Your task to perform on an android device: Open Maps and search for coffee Image 0: 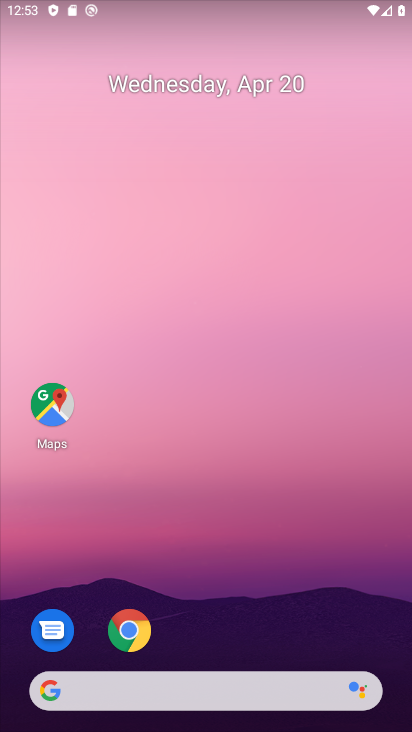
Step 0: drag from (328, 622) to (308, 241)
Your task to perform on an android device: Open Maps and search for coffee Image 1: 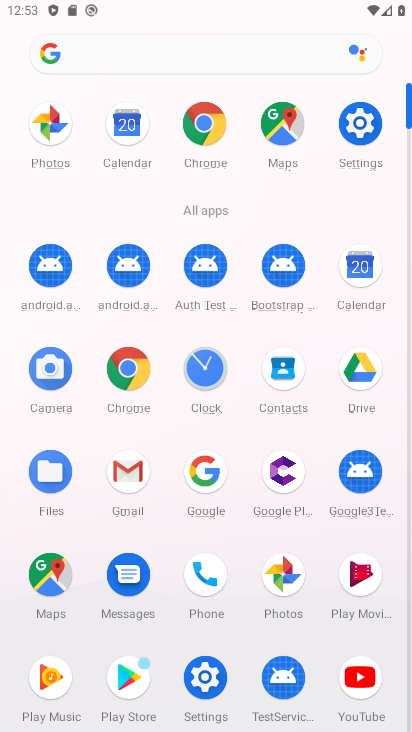
Step 1: click (283, 134)
Your task to perform on an android device: Open Maps and search for coffee Image 2: 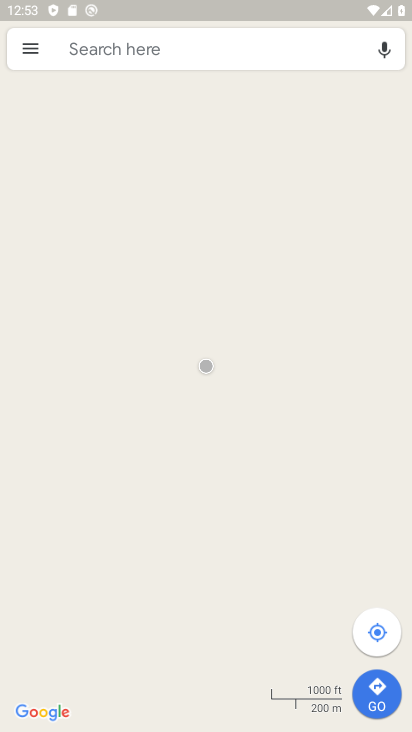
Step 2: click (189, 55)
Your task to perform on an android device: Open Maps and search for coffee Image 3: 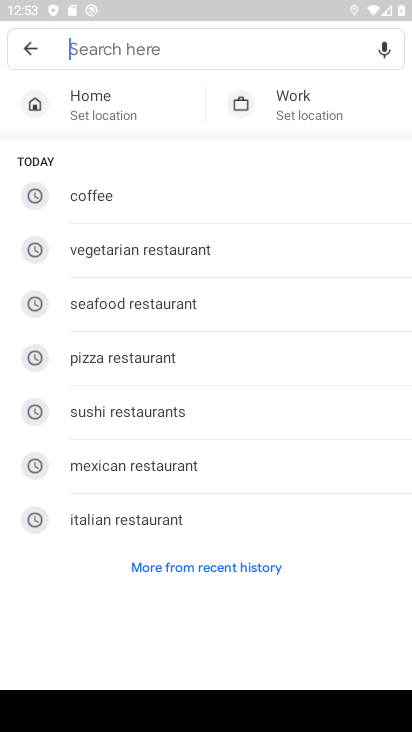
Step 3: type "coffee"
Your task to perform on an android device: Open Maps and search for coffee Image 4: 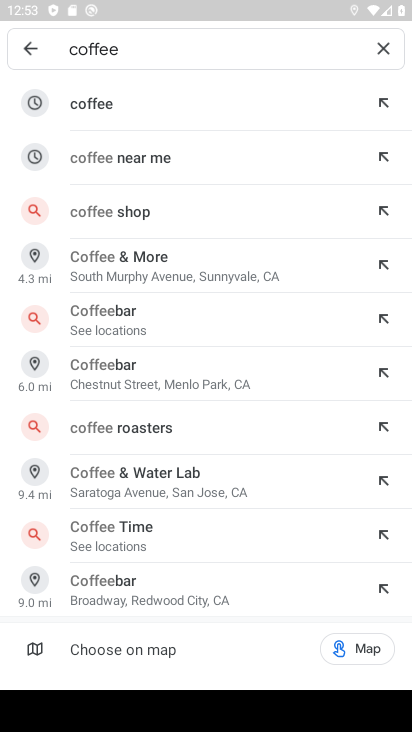
Step 4: click (85, 105)
Your task to perform on an android device: Open Maps and search for coffee Image 5: 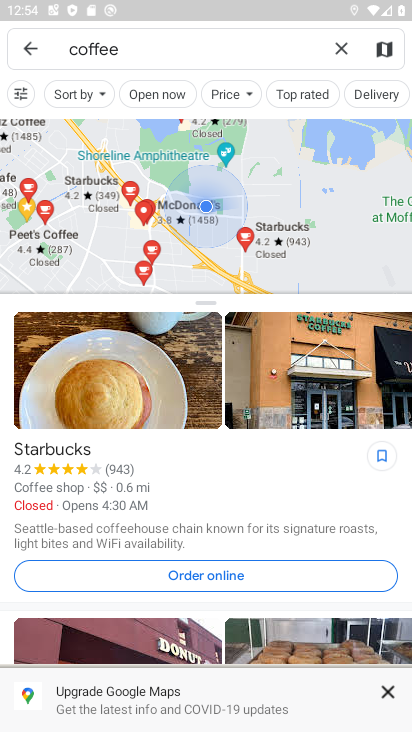
Step 5: task complete